Your task to perform on an android device: make emails show in primary in the gmail app Image 0: 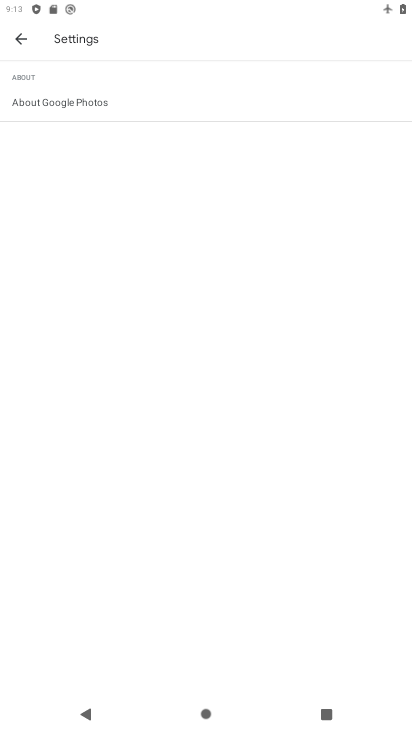
Step 0: press home button
Your task to perform on an android device: make emails show in primary in the gmail app Image 1: 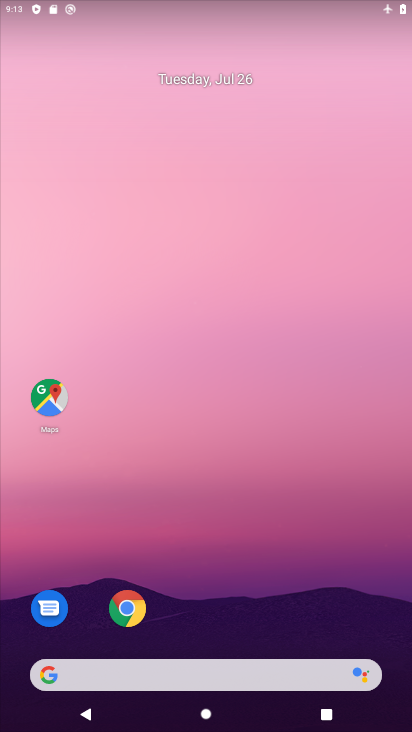
Step 1: drag from (194, 609) to (237, 128)
Your task to perform on an android device: make emails show in primary in the gmail app Image 2: 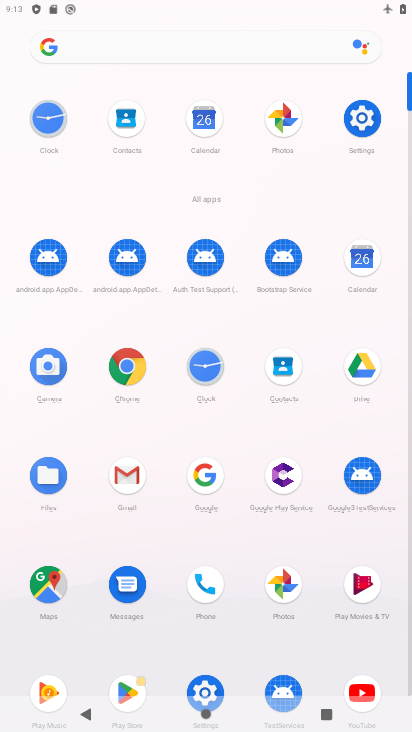
Step 2: click (141, 466)
Your task to perform on an android device: make emails show in primary in the gmail app Image 3: 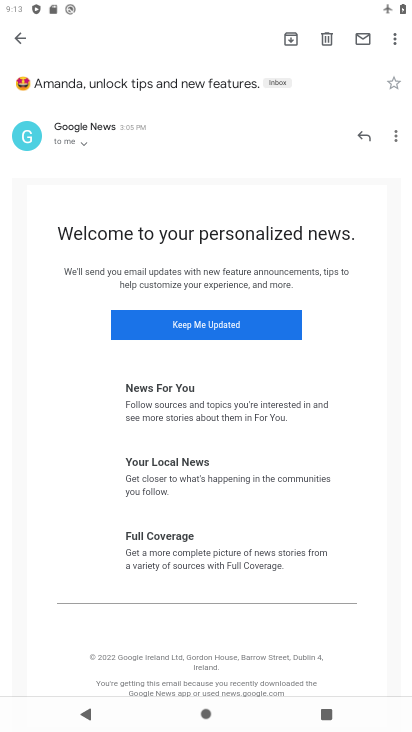
Step 3: click (391, 44)
Your task to perform on an android device: make emails show in primary in the gmail app Image 4: 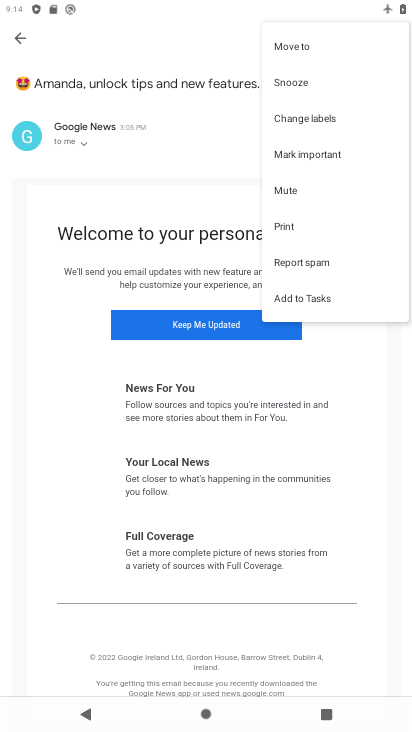
Step 4: click (22, 249)
Your task to perform on an android device: make emails show in primary in the gmail app Image 5: 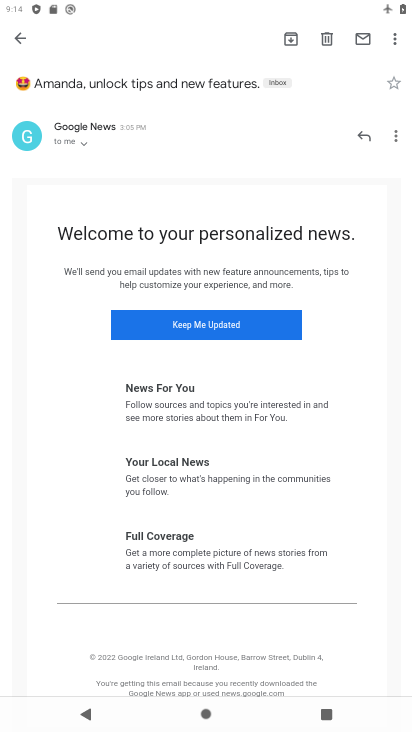
Step 5: click (28, 41)
Your task to perform on an android device: make emails show in primary in the gmail app Image 6: 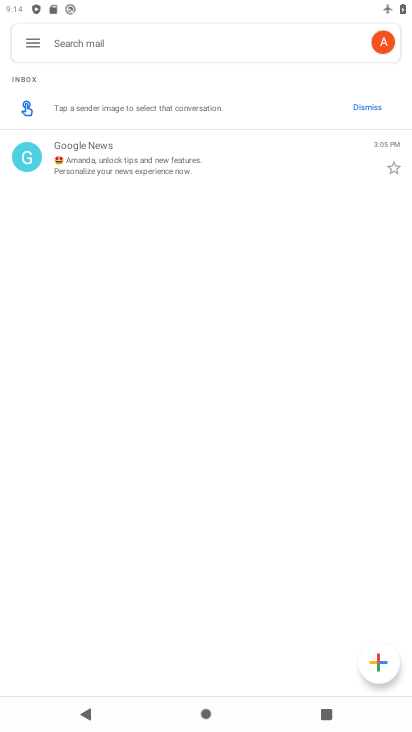
Step 6: click (28, 41)
Your task to perform on an android device: make emails show in primary in the gmail app Image 7: 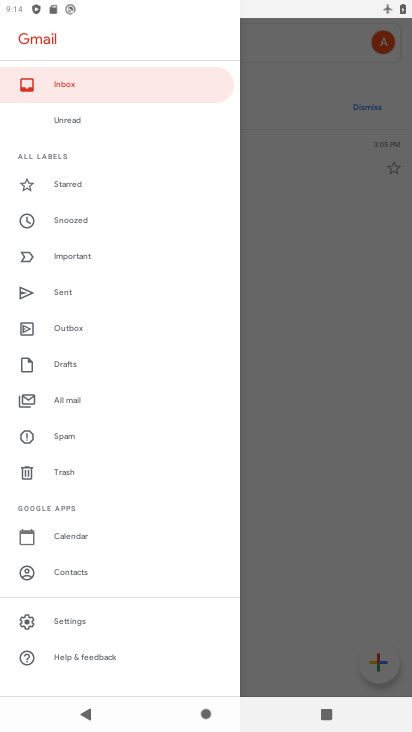
Step 7: click (73, 623)
Your task to perform on an android device: make emails show in primary in the gmail app Image 8: 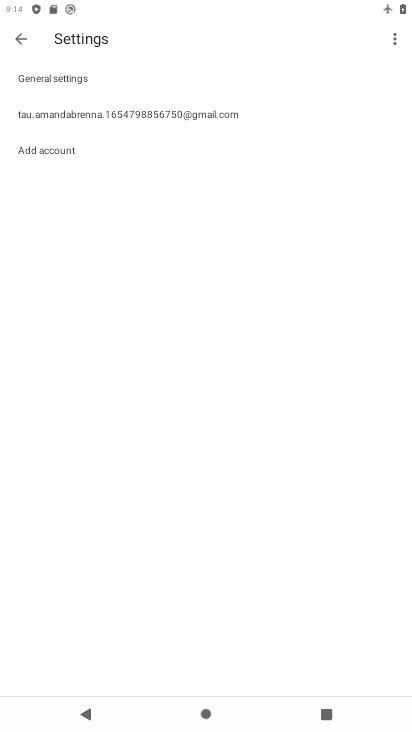
Step 8: click (128, 118)
Your task to perform on an android device: make emails show in primary in the gmail app Image 9: 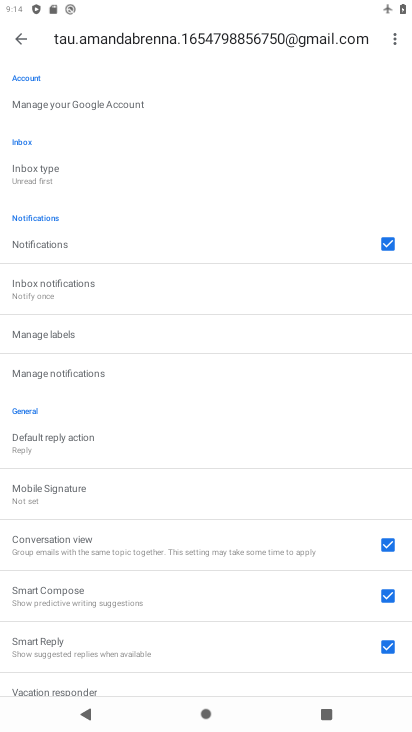
Step 9: drag from (207, 174) to (247, 514)
Your task to perform on an android device: make emails show in primary in the gmail app Image 10: 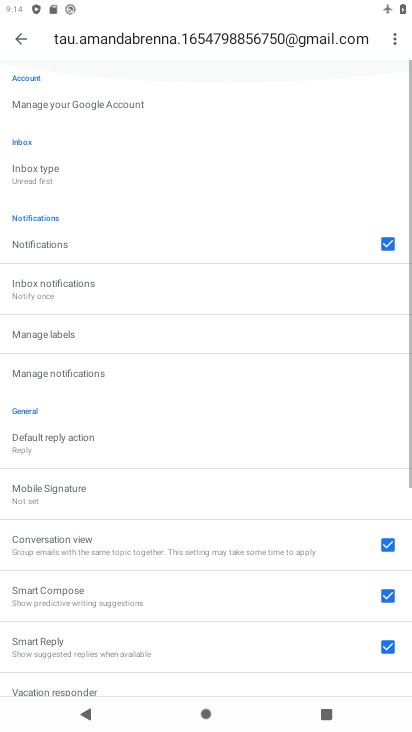
Step 10: click (57, 182)
Your task to perform on an android device: make emails show in primary in the gmail app Image 11: 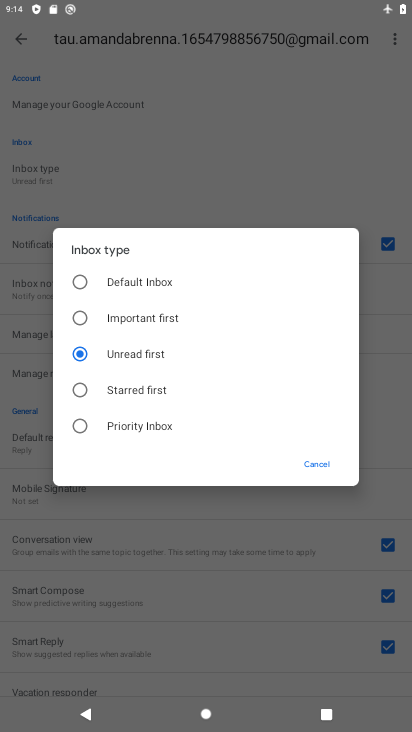
Step 11: click (130, 308)
Your task to perform on an android device: make emails show in primary in the gmail app Image 12: 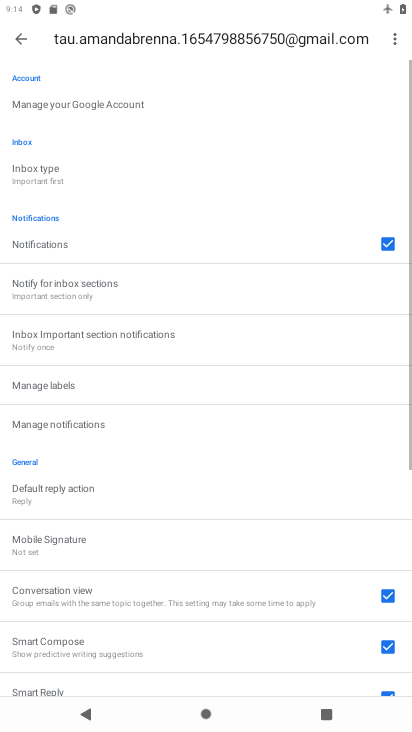
Step 12: click (134, 299)
Your task to perform on an android device: make emails show in primary in the gmail app Image 13: 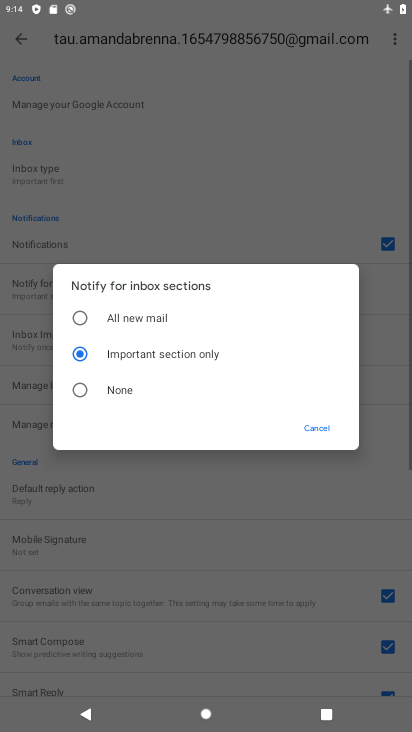
Step 13: click (65, 183)
Your task to perform on an android device: make emails show in primary in the gmail app Image 14: 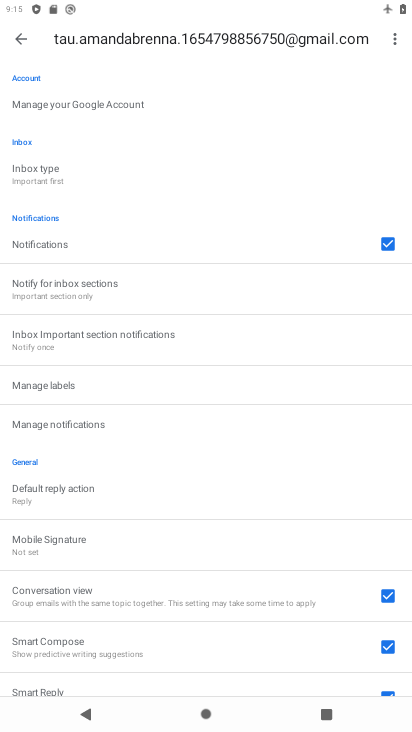
Step 14: click (55, 173)
Your task to perform on an android device: make emails show in primary in the gmail app Image 15: 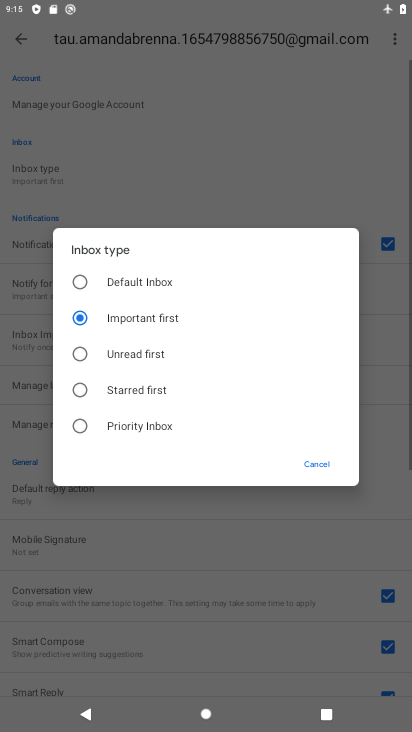
Step 15: click (130, 283)
Your task to perform on an android device: make emails show in primary in the gmail app Image 16: 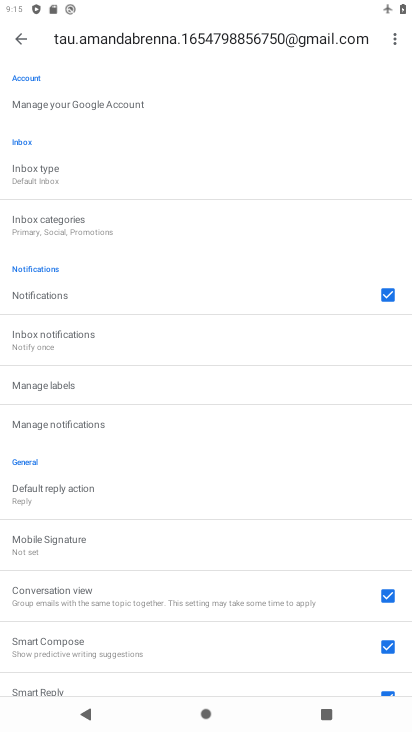
Step 16: task complete